Your task to perform on an android device: When is my next appointment? Image 0: 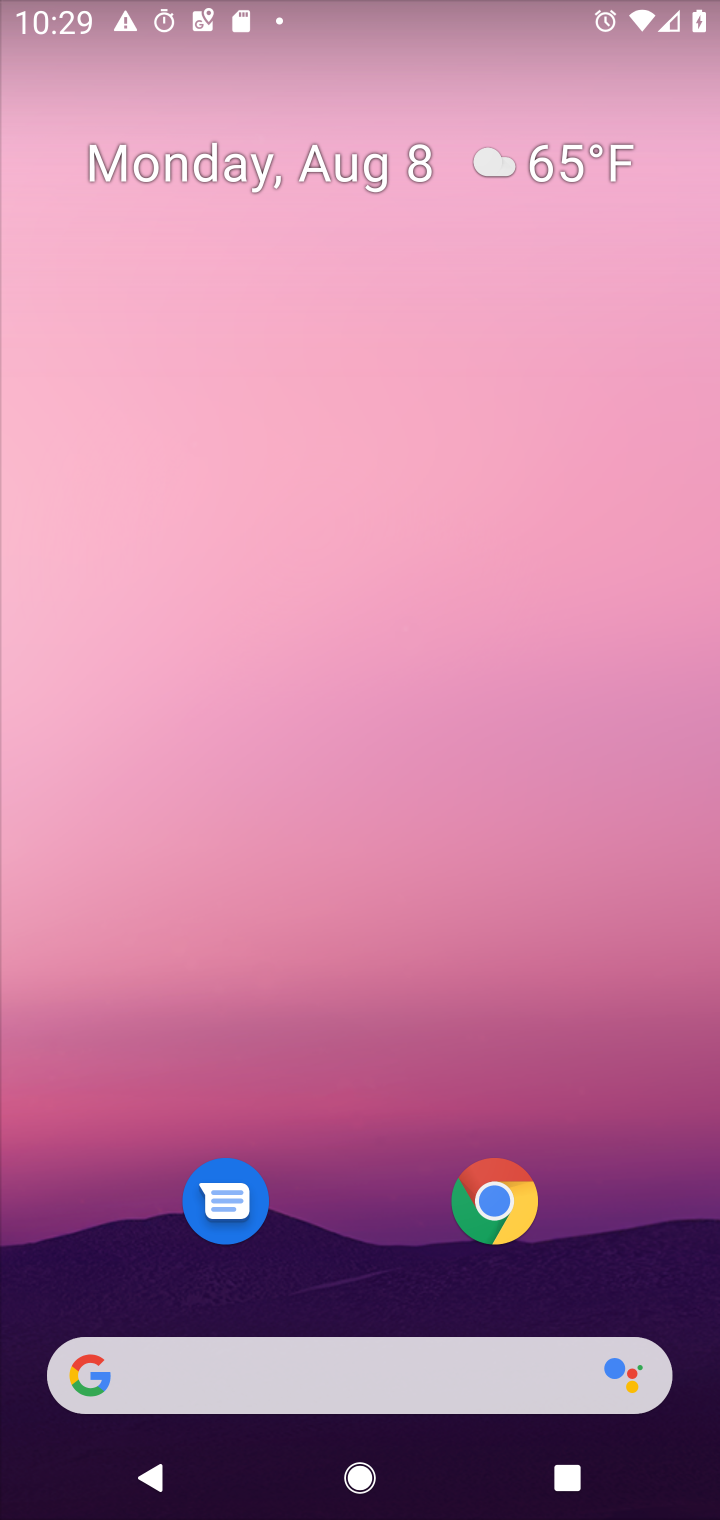
Step 0: press home button
Your task to perform on an android device: When is my next appointment? Image 1: 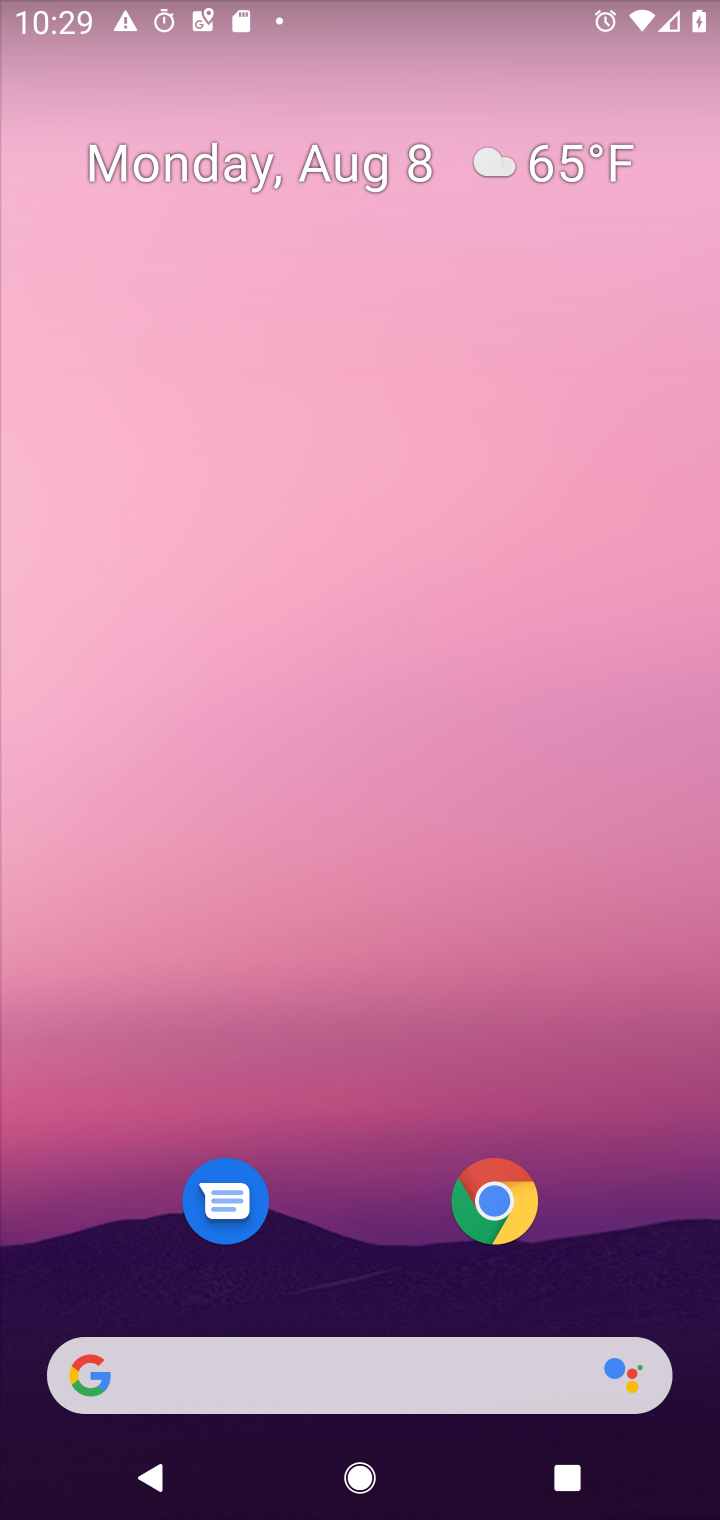
Step 1: drag from (378, 1261) to (456, 176)
Your task to perform on an android device: When is my next appointment? Image 2: 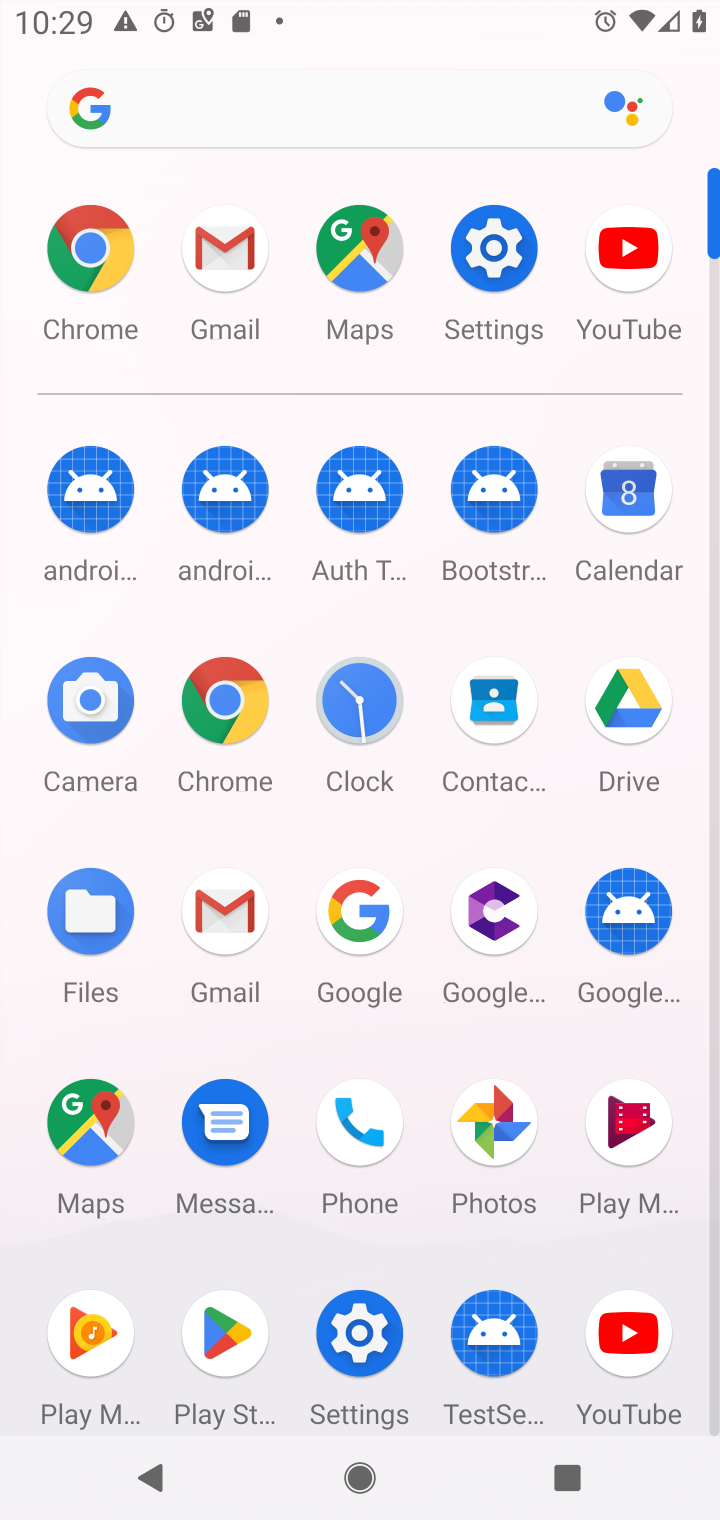
Step 2: click (615, 486)
Your task to perform on an android device: When is my next appointment? Image 3: 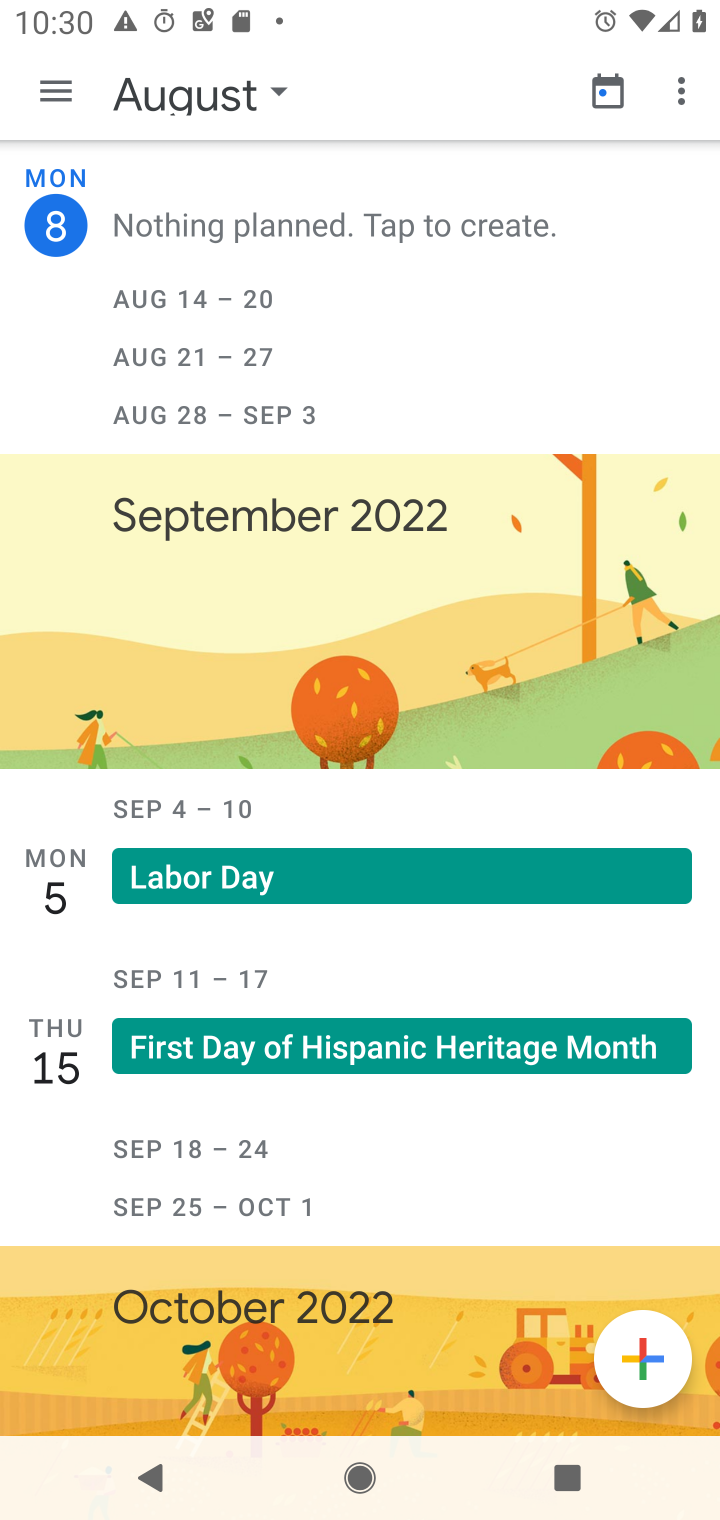
Step 3: task complete